Your task to perform on an android device: Do I have any events today? Image 0: 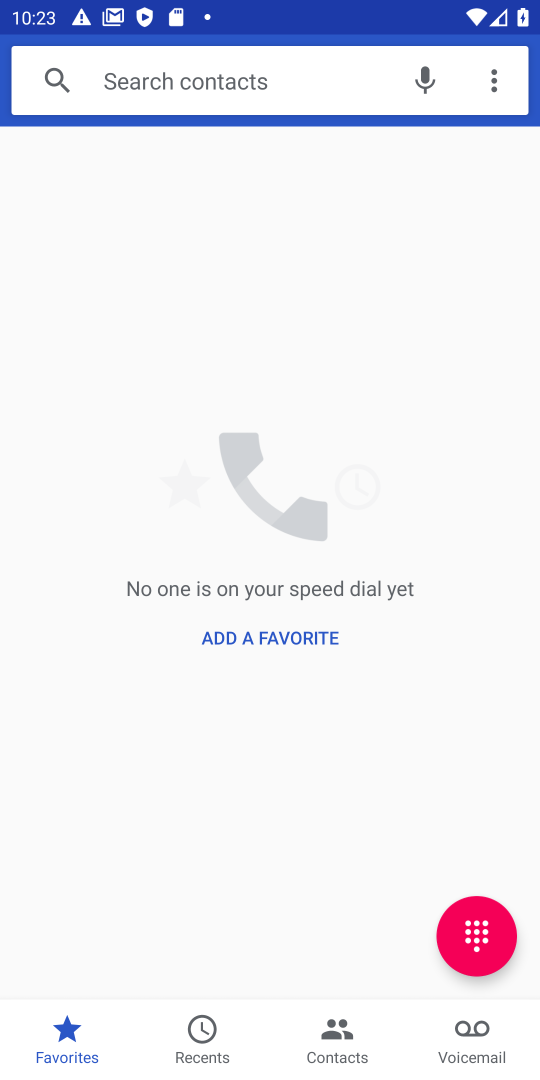
Step 0: press home button
Your task to perform on an android device: Do I have any events today? Image 1: 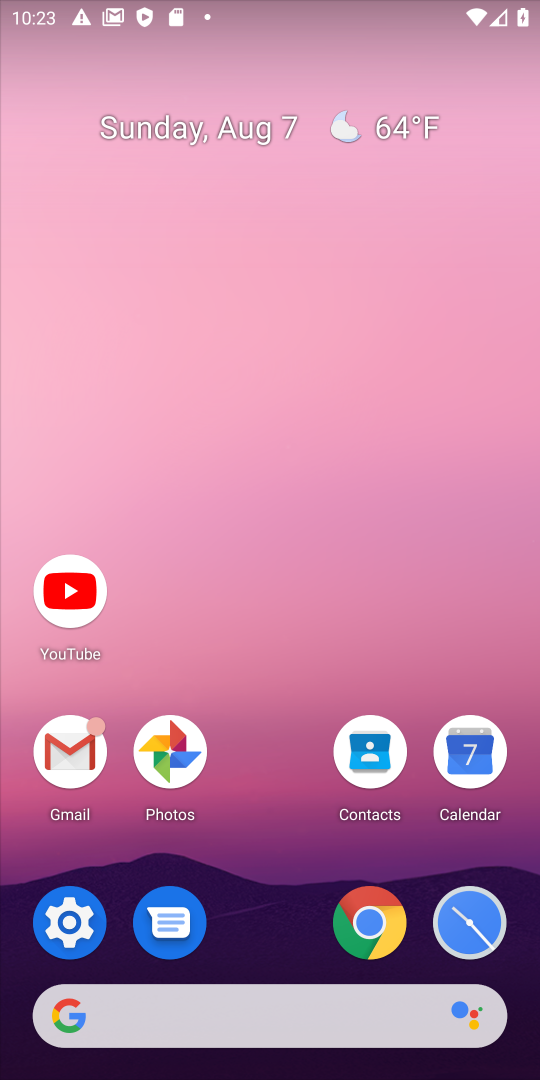
Step 1: click (468, 761)
Your task to perform on an android device: Do I have any events today? Image 2: 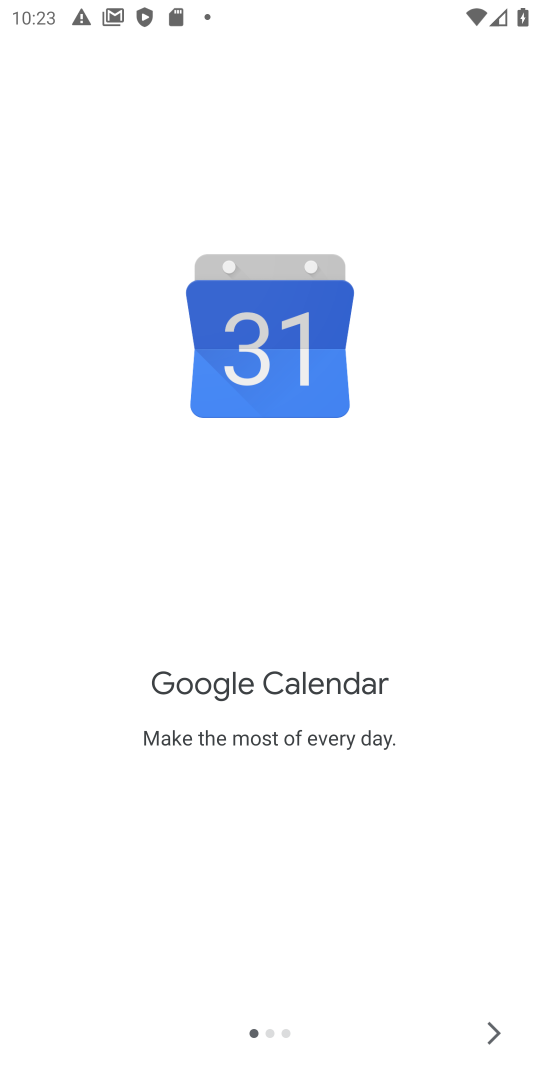
Step 2: click (490, 1033)
Your task to perform on an android device: Do I have any events today? Image 3: 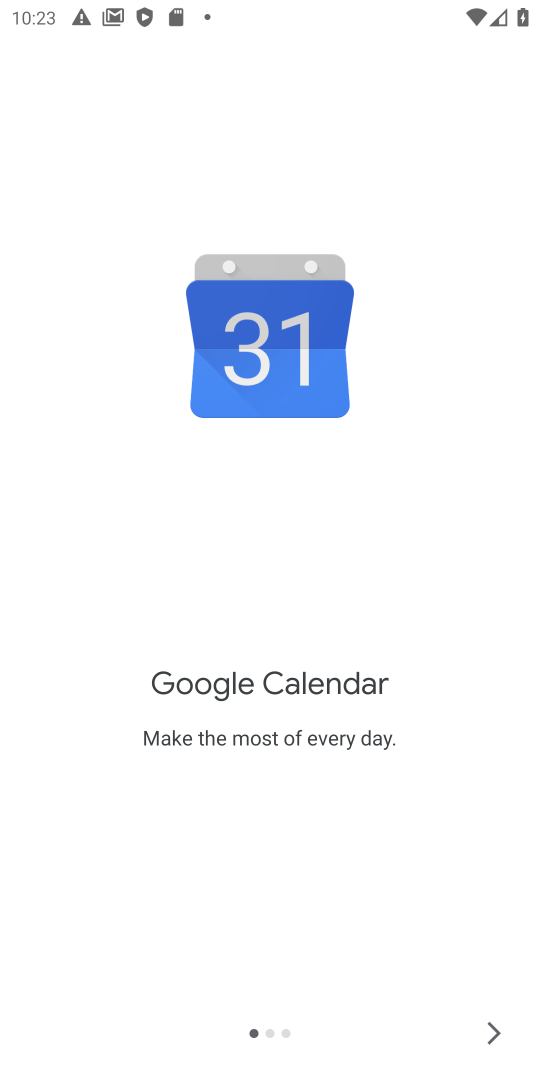
Step 3: click (490, 1033)
Your task to perform on an android device: Do I have any events today? Image 4: 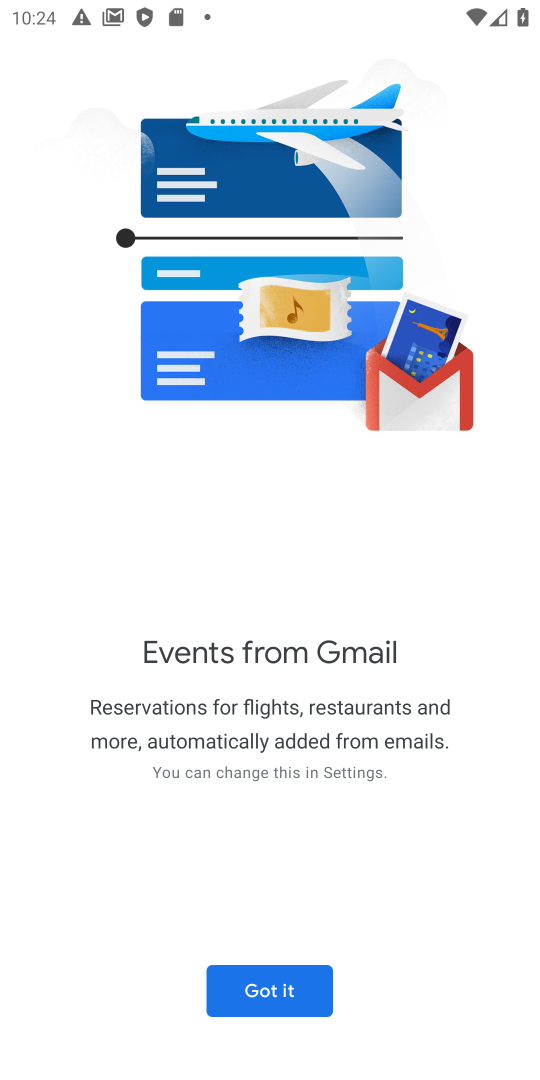
Step 4: click (295, 990)
Your task to perform on an android device: Do I have any events today? Image 5: 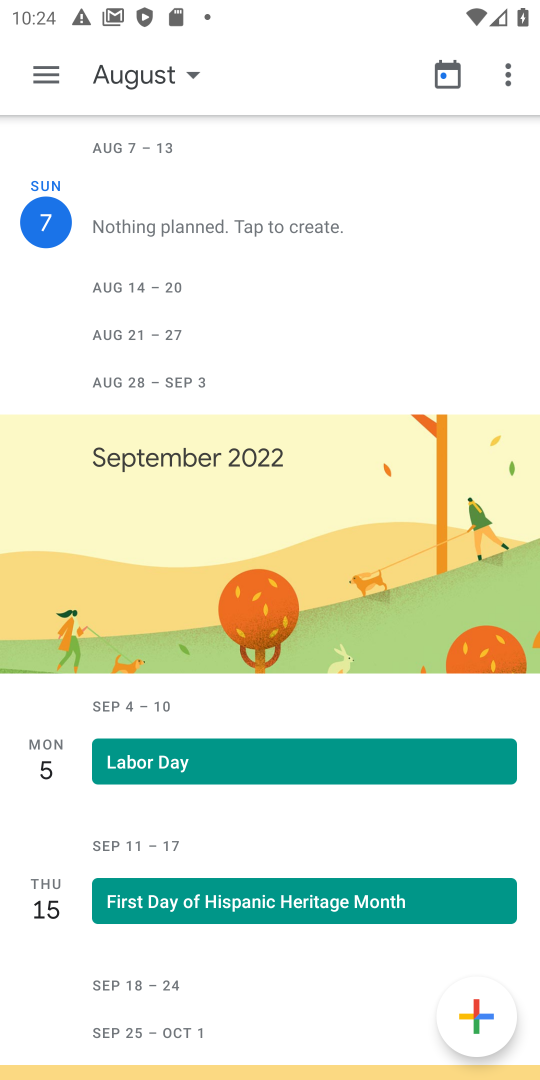
Step 5: click (35, 62)
Your task to perform on an android device: Do I have any events today? Image 6: 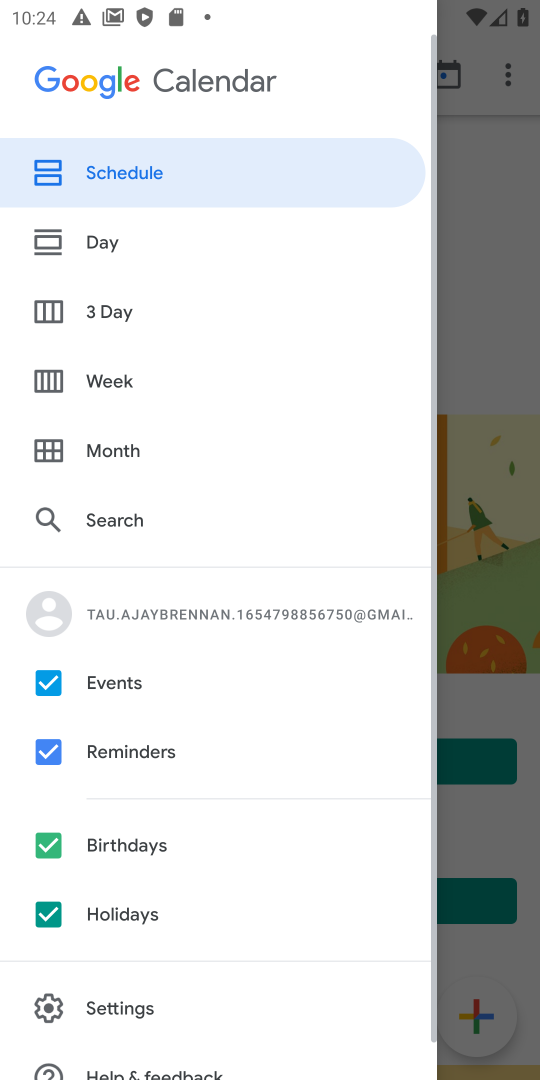
Step 6: click (103, 242)
Your task to perform on an android device: Do I have any events today? Image 7: 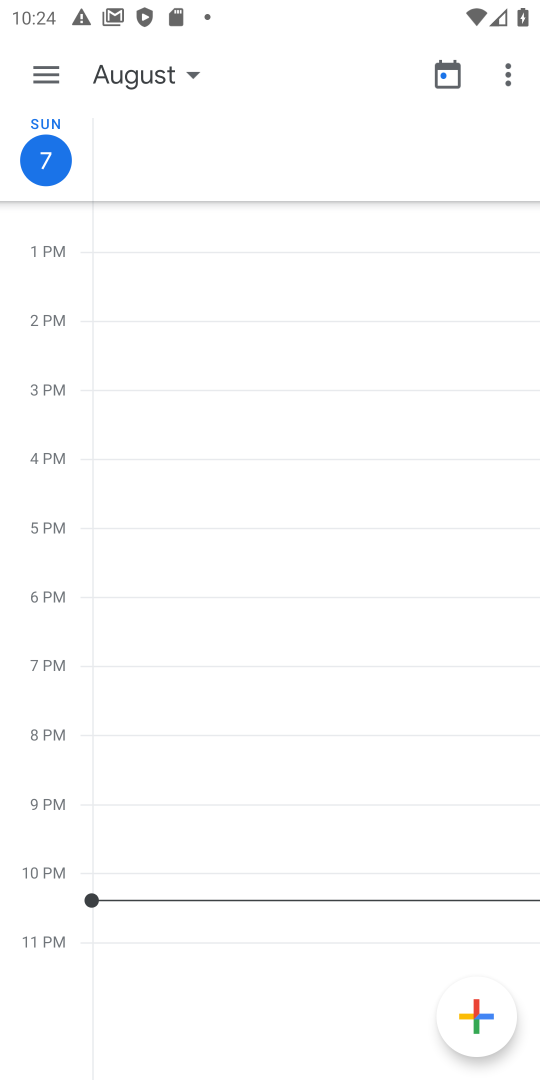
Step 7: click (192, 75)
Your task to perform on an android device: Do I have any events today? Image 8: 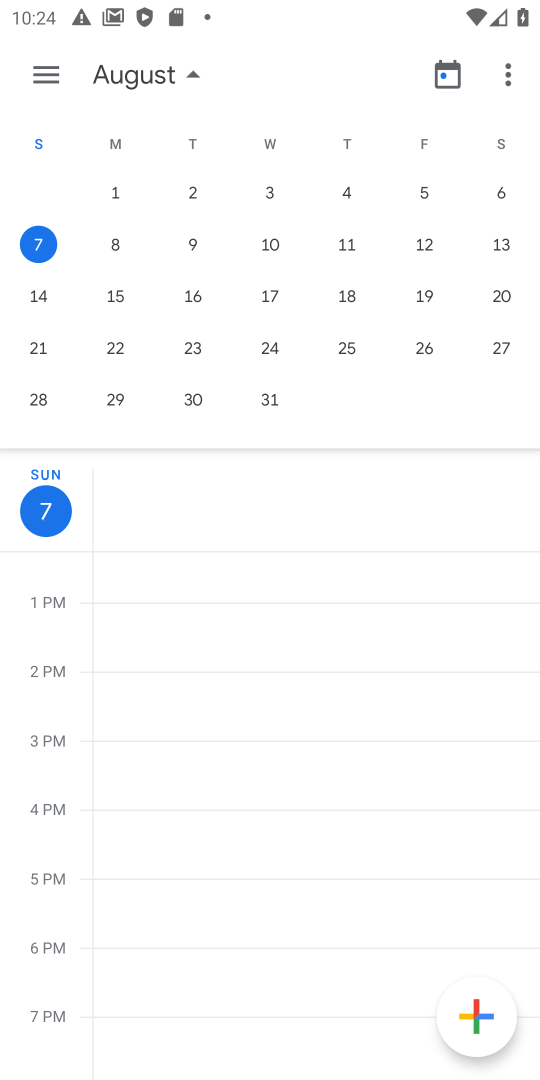
Step 8: click (104, 240)
Your task to perform on an android device: Do I have any events today? Image 9: 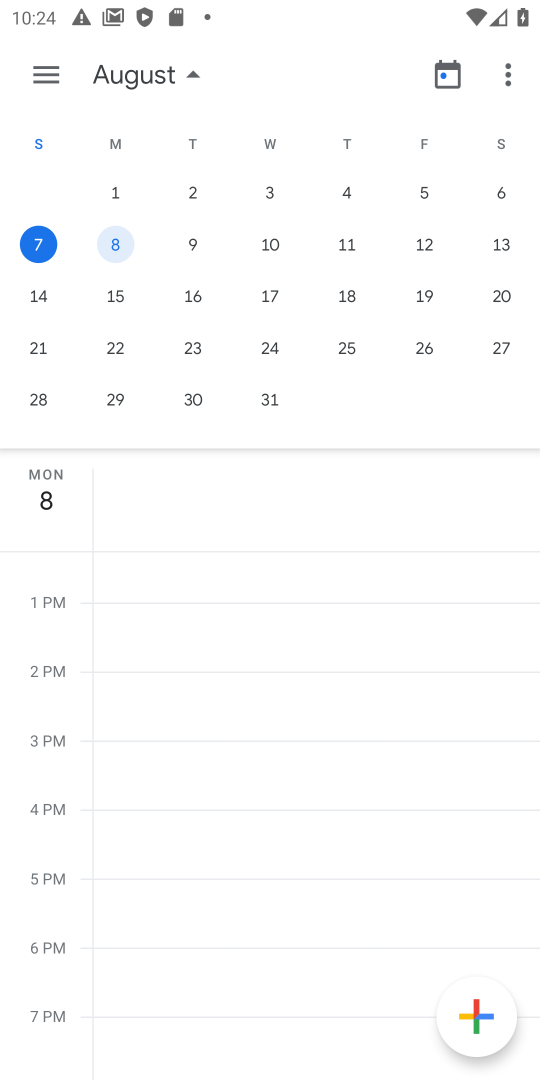
Step 9: task complete